Your task to perform on an android device: turn off improve location accuracy Image 0: 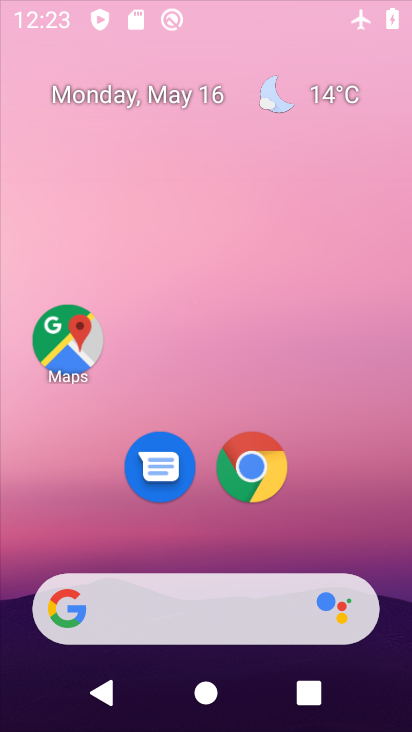
Step 0: click (309, 341)
Your task to perform on an android device: turn off improve location accuracy Image 1: 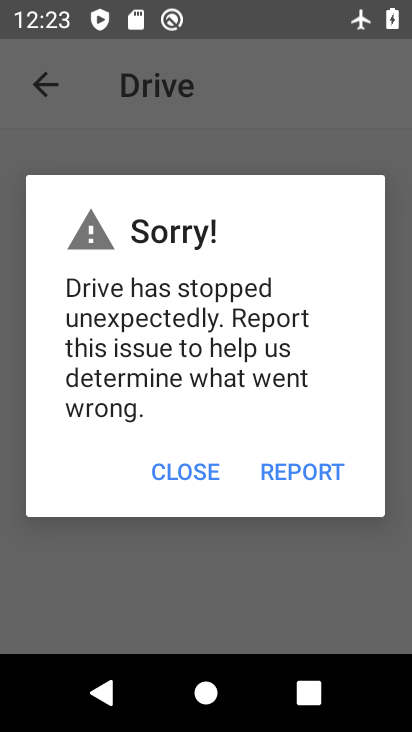
Step 1: press home button
Your task to perform on an android device: turn off improve location accuracy Image 2: 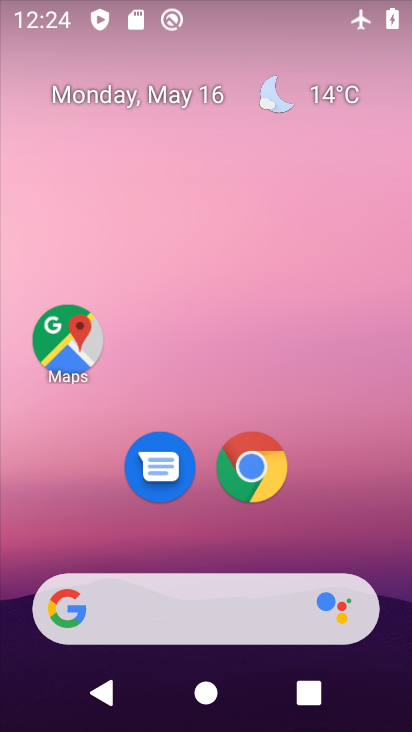
Step 2: drag from (202, 535) to (319, 245)
Your task to perform on an android device: turn off improve location accuracy Image 3: 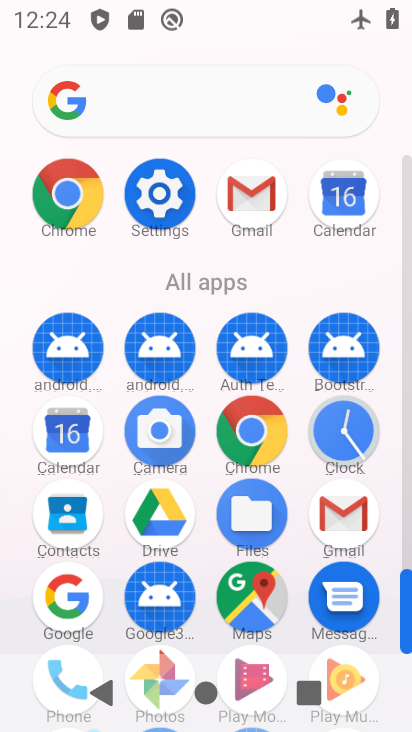
Step 3: click (151, 178)
Your task to perform on an android device: turn off improve location accuracy Image 4: 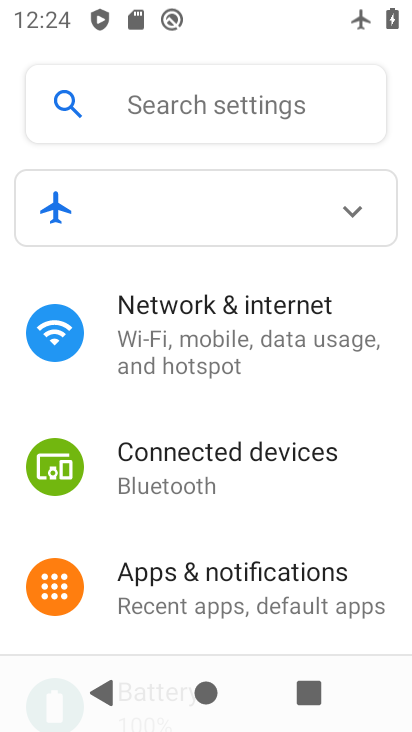
Step 4: drag from (159, 579) to (307, 283)
Your task to perform on an android device: turn off improve location accuracy Image 5: 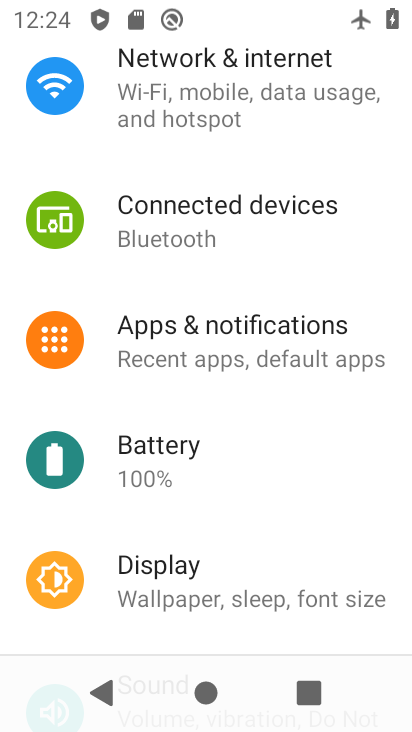
Step 5: drag from (184, 537) to (313, 250)
Your task to perform on an android device: turn off improve location accuracy Image 6: 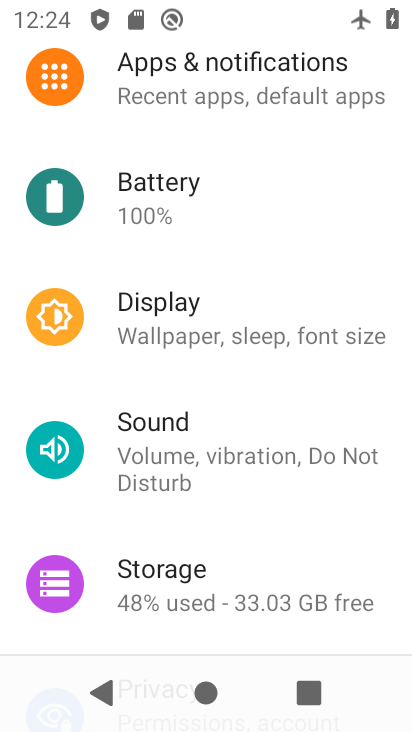
Step 6: drag from (159, 528) to (297, 188)
Your task to perform on an android device: turn off improve location accuracy Image 7: 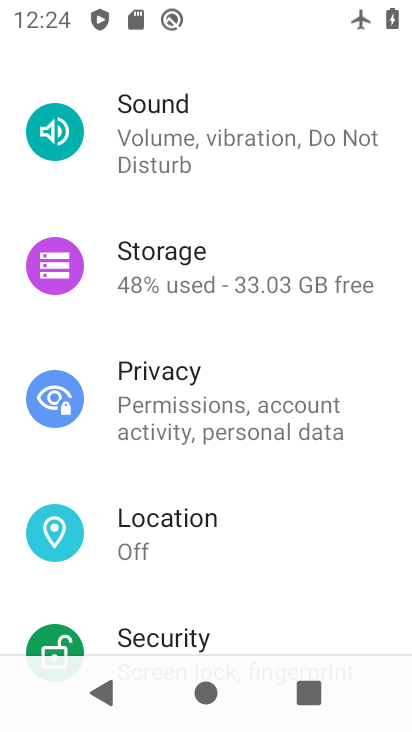
Step 7: click (125, 530)
Your task to perform on an android device: turn off improve location accuracy Image 8: 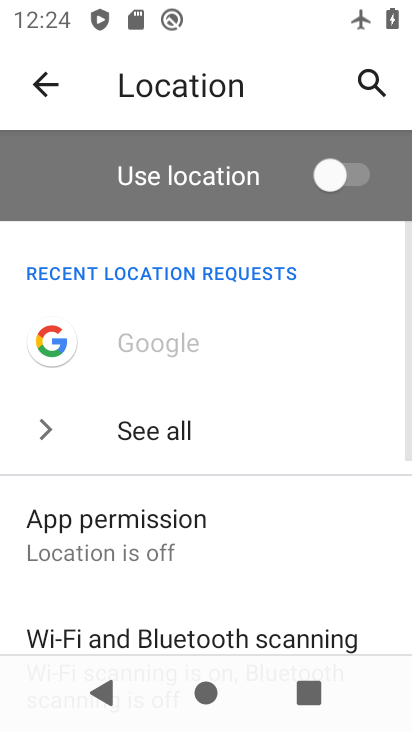
Step 8: drag from (94, 590) to (286, 265)
Your task to perform on an android device: turn off improve location accuracy Image 9: 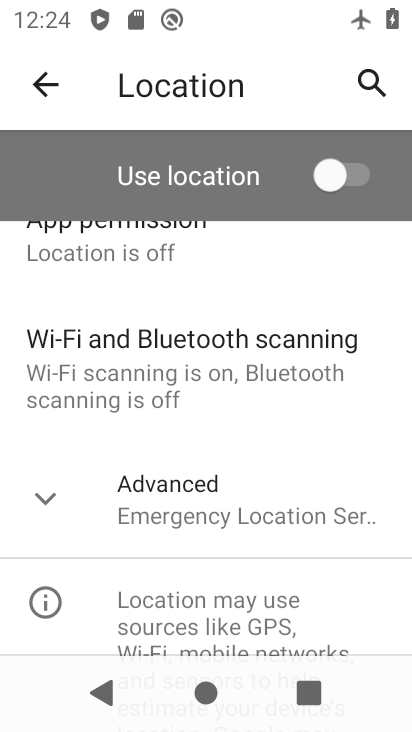
Step 9: click (151, 508)
Your task to perform on an android device: turn off improve location accuracy Image 10: 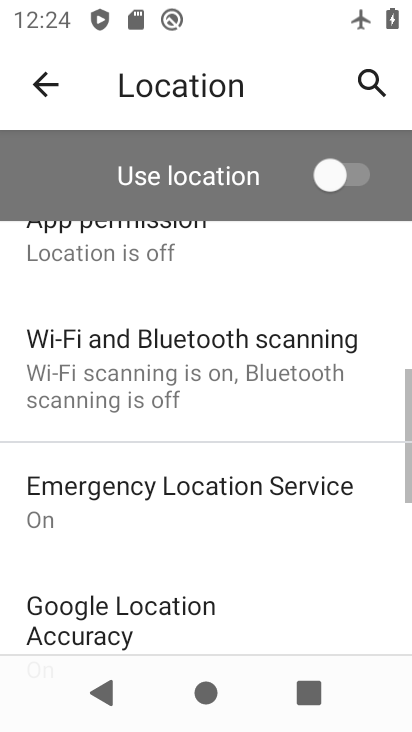
Step 10: drag from (142, 544) to (223, 383)
Your task to perform on an android device: turn off improve location accuracy Image 11: 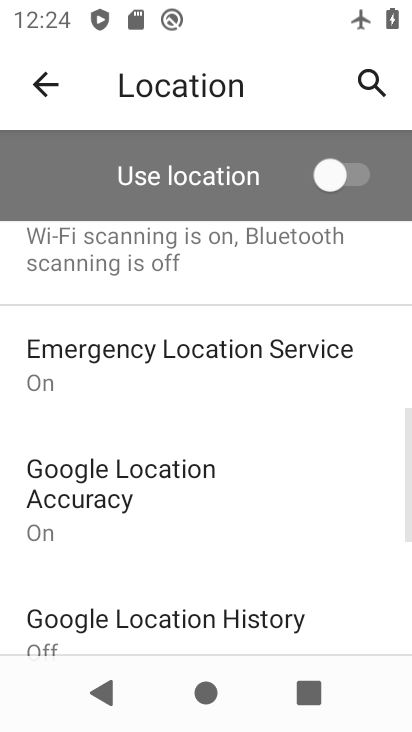
Step 11: click (144, 469)
Your task to perform on an android device: turn off improve location accuracy Image 12: 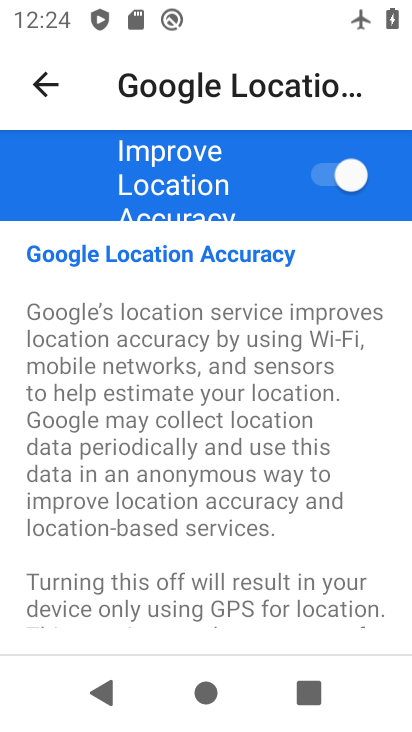
Step 12: click (333, 176)
Your task to perform on an android device: turn off improve location accuracy Image 13: 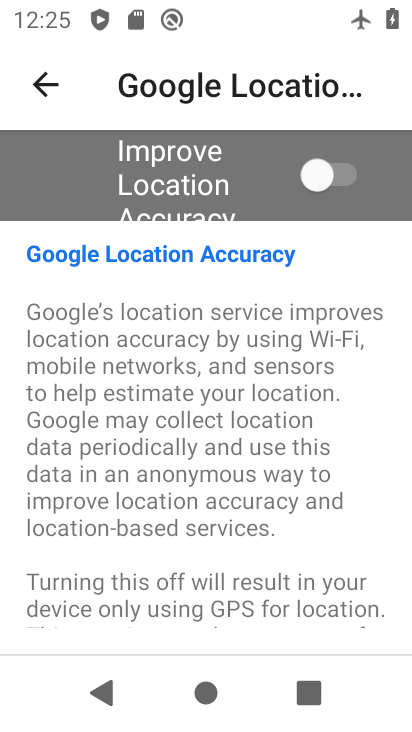
Step 13: task complete